Your task to perform on an android device: open device folders in google photos Image 0: 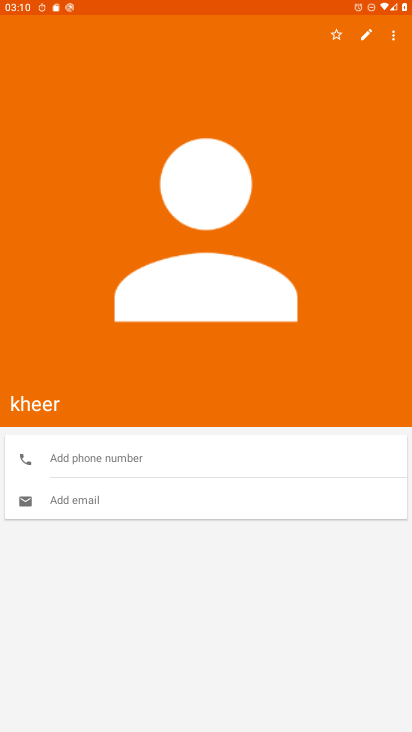
Step 0: press home button
Your task to perform on an android device: open device folders in google photos Image 1: 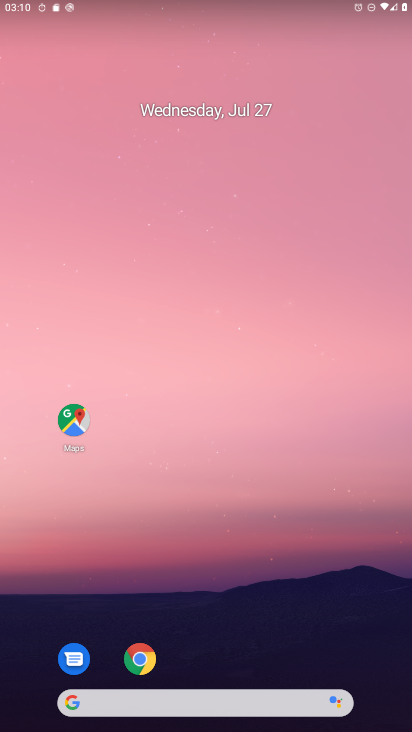
Step 1: click (283, 134)
Your task to perform on an android device: open device folders in google photos Image 2: 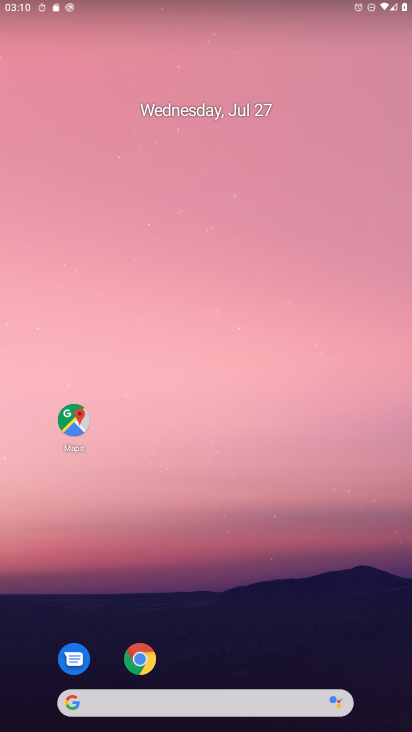
Step 2: drag from (278, 581) to (249, 106)
Your task to perform on an android device: open device folders in google photos Image 3: 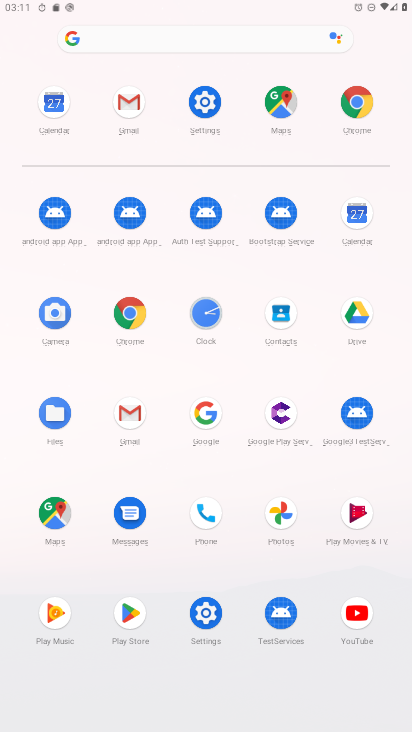
Step 3: click (277, 516)
Your task to perform on an android device: open device folders in google photos Image 4: 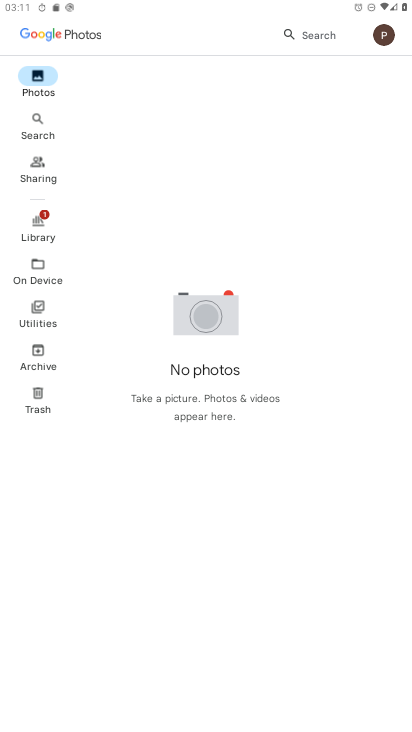
Step 4: click (49, 230)
Your task to perform on an android device: open device folders in google photos Image 5: 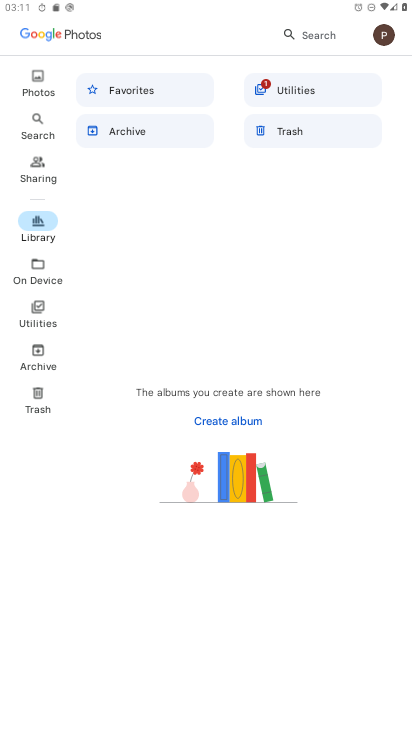
Step 5: click (280, 88)
Your task to perform on an android device: open device folders in google photos Image 6: 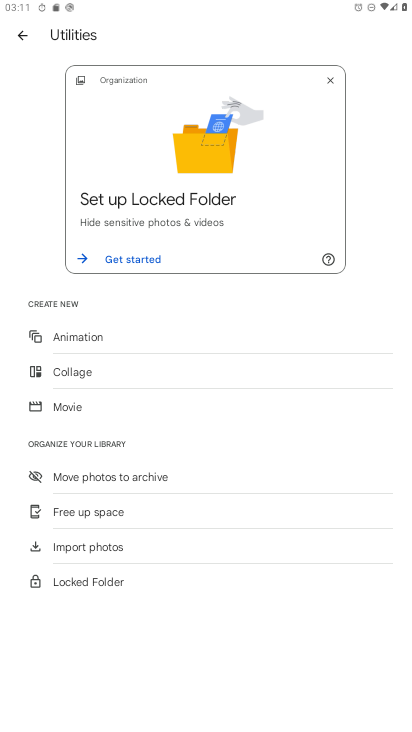
Step 6: click (22, 36)
Your task to perform on an android device: open device folders in google photos Image 7: 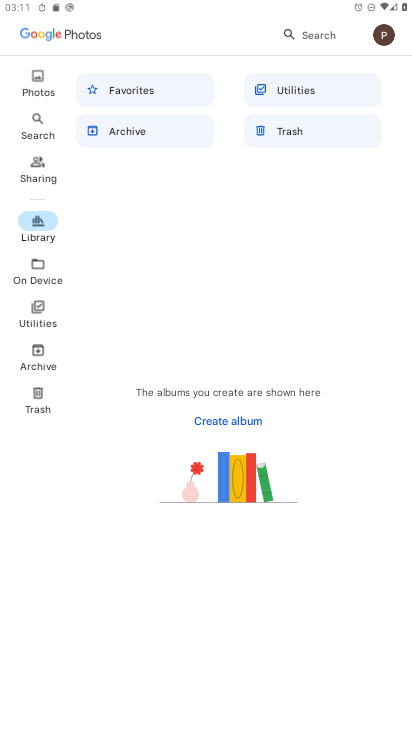
Step 7: click (41, 277)
Your task to perform on an android device: open device folders in google photos Image 8: 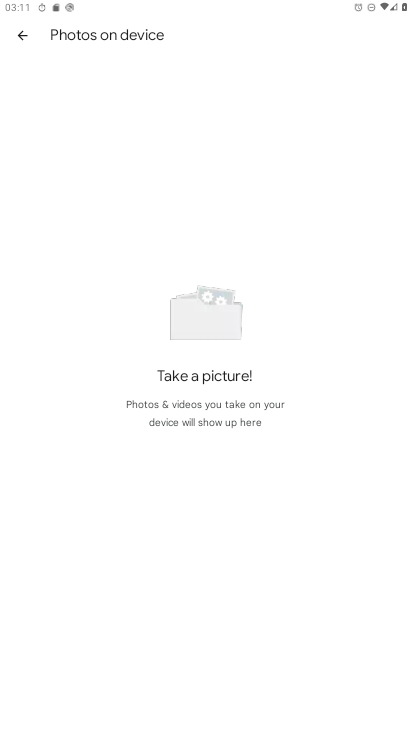
Step 8: task complete